Your task to perform on an android device: Open calendar and show me the third week of next month Image 0: 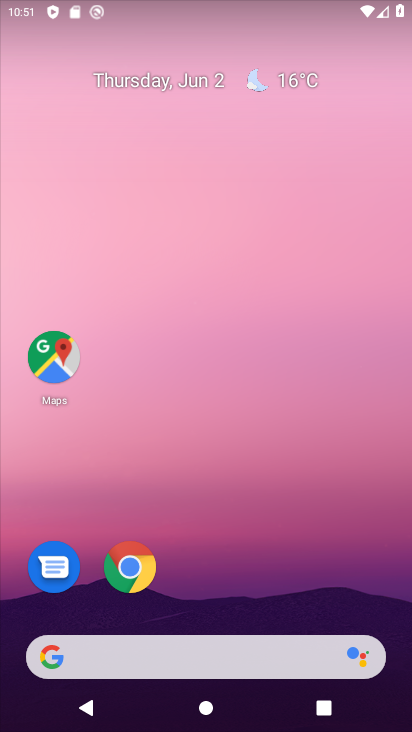
Step 0: drag from (172, 457) to (152, 59)
Your task to perform on an android device: Open calendar and show me the third week of next month Image 1: 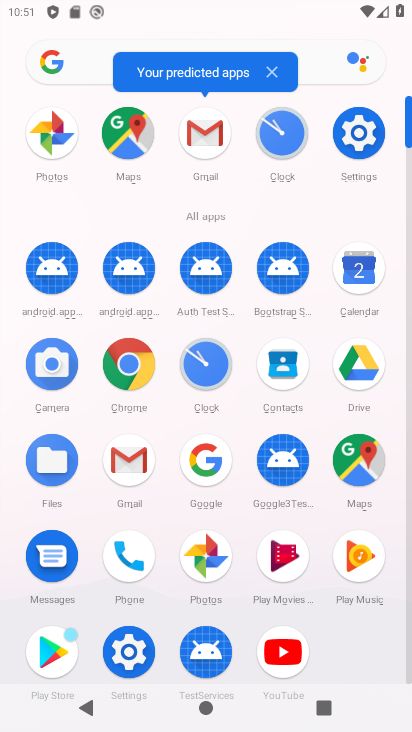
Step 1: click (351, 265)
Your task to perform on an android device: Open calendar and show me the third week of next month Image 2: 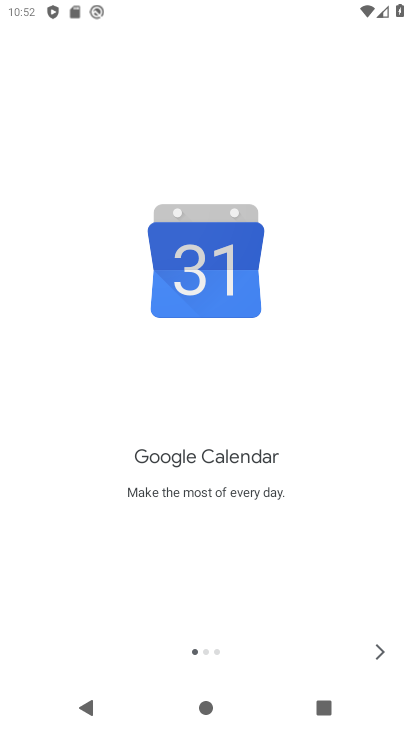
Step 2: click (373, 646)
Your task to perform on an android device: Open calendar and show me the third week of next month Image 3: 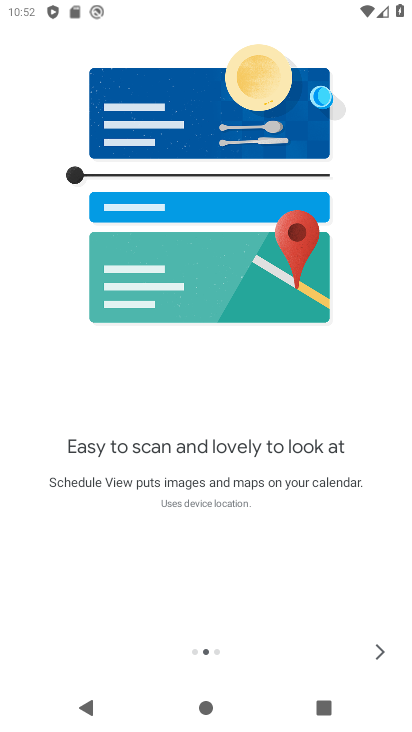
Step 3: click (373, 646)
Your task to perform on an android device: Open calendar and show me the third week of next month Image 4: 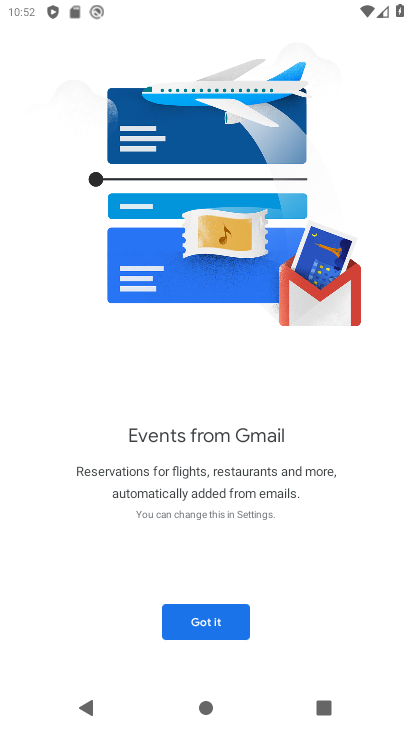
Step 4: click (192, 618)
Your task to perform on an android device: Open calendar and show me the third week of next month Image 5: 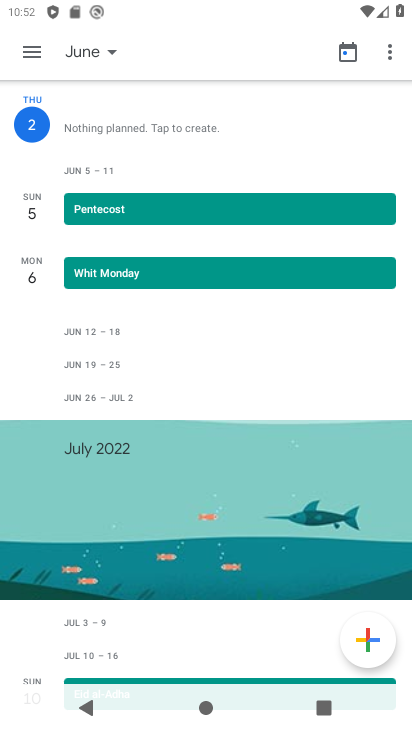
Step 5: click (90, 58)
Your task to perform on an android device: Open calendar and show me the third week of next month Image 6: 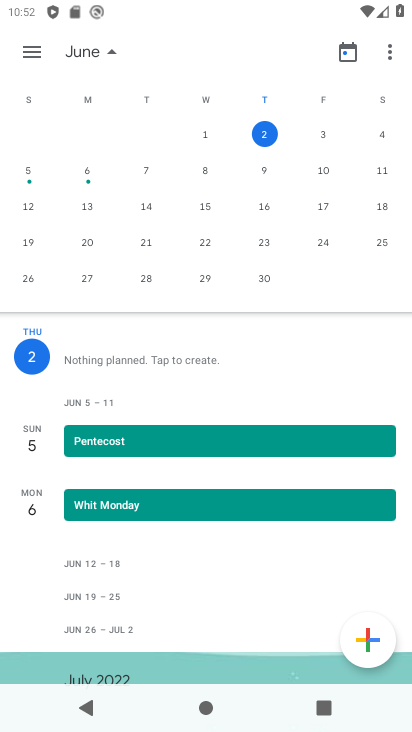
Step 6: drag from (384, 275) to (11, 244)
Your task to perform on an android device: Open calendar and show me the third week of next month Image 7: 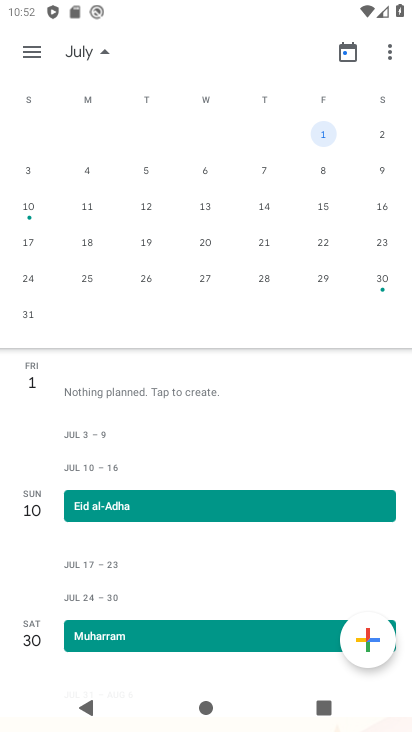
Step 7: click (39, 55)
Your task to perform on an android device: Open calendar and show me the third week of next month Image 8: 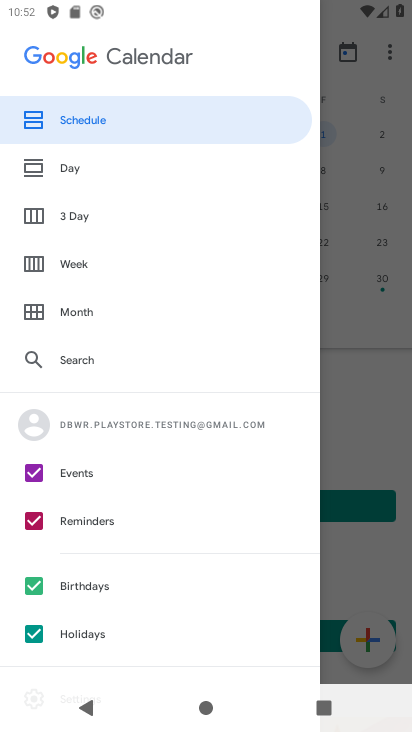
Step 8: click (81, 257)
Your task to perform on an android device: Open calendar and show me the third week of next month Image 9: 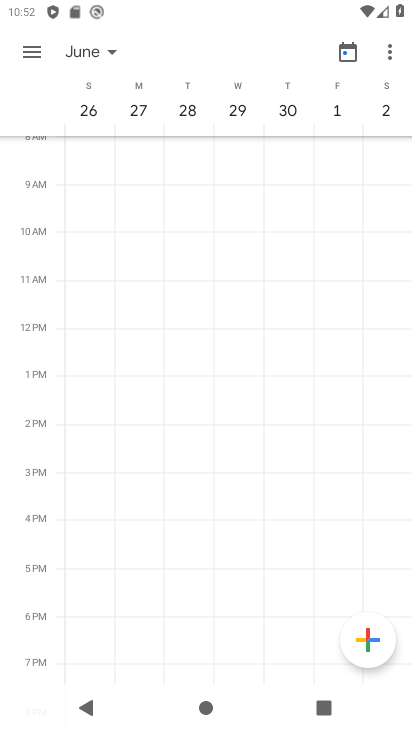
Step 9: task complete